Your task to perform on an android device: Search for Italian restaurants on Maps Image 0: 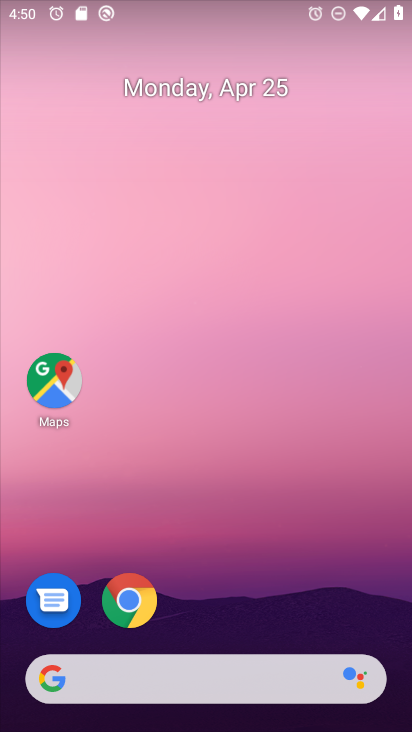
Step 0: drag from (230, 572) to (204, 28)
Your task to perform on an android device: Search for Italian restaurants on Maps Image 1: 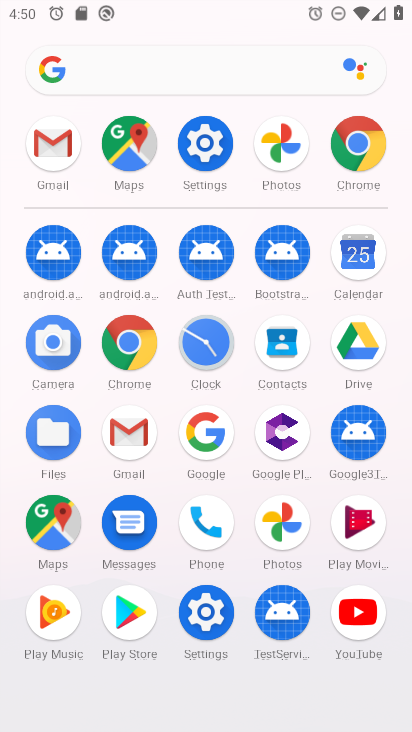
Step 1: drag from (4, 558) to (0, 312)
Your task to perform on an android device: Search for Italian restaurants on Maps Image 2: 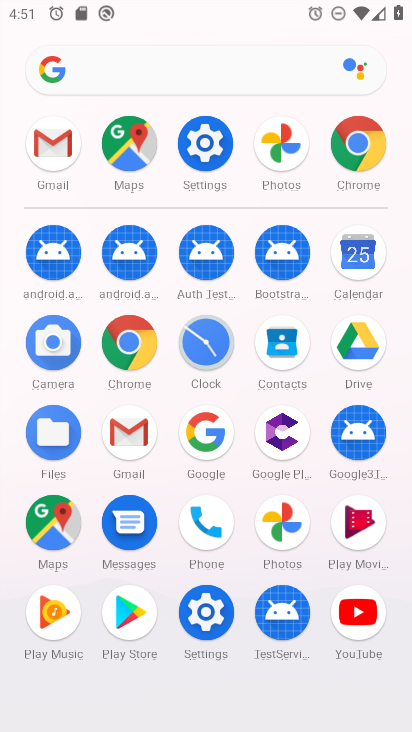
Step 2: click (123, 137)
Your task to perform on an android device: Search for Italian restaurants on Maps Image 3: 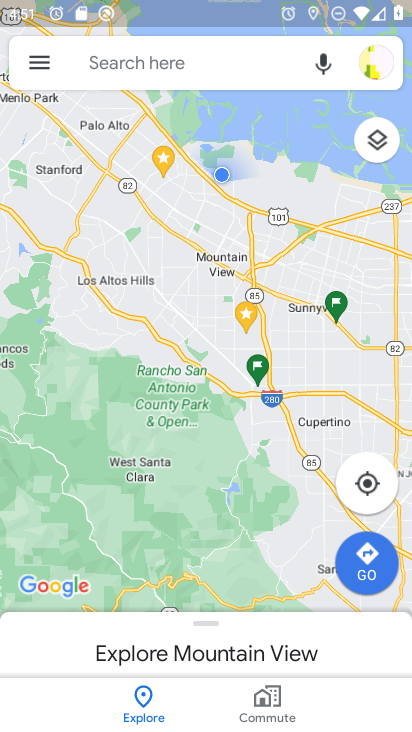
Step 3: click (174, 62)
Your task to perform on an android device: Search for Italian restaurants on Maps Image 4: 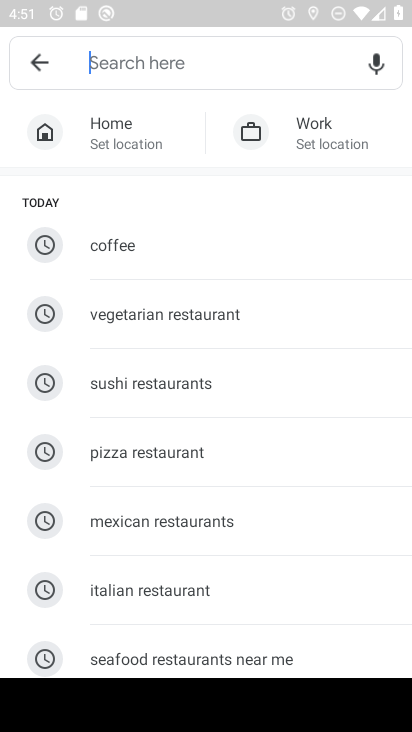
Step 4: click (223, 596)
Your task to perform on an android device: Search for Italian restaurants on Maps Image 5: 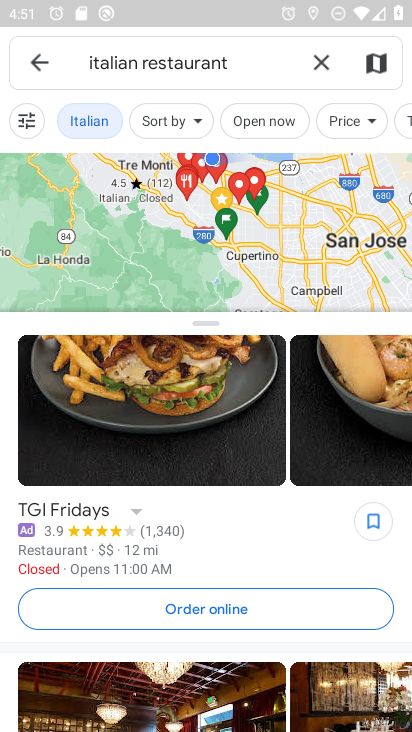
Step 5: task complete